Your task to perform on an android device: turn off improve location accuracy Image 0: 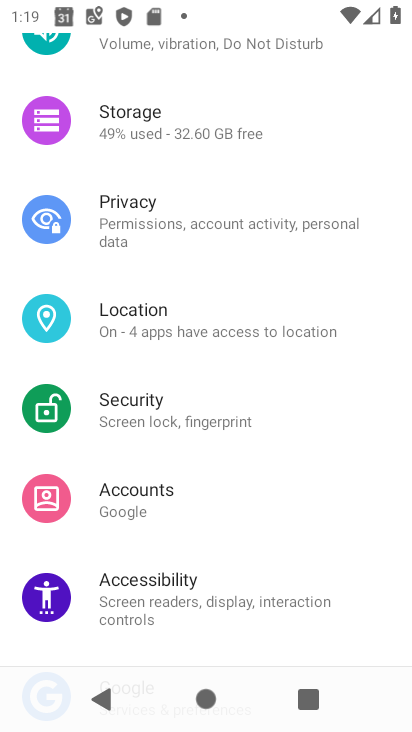
Step 0: click (145, 311)
Your task to perform on an android device: turn off improve location accuracy Image 1: 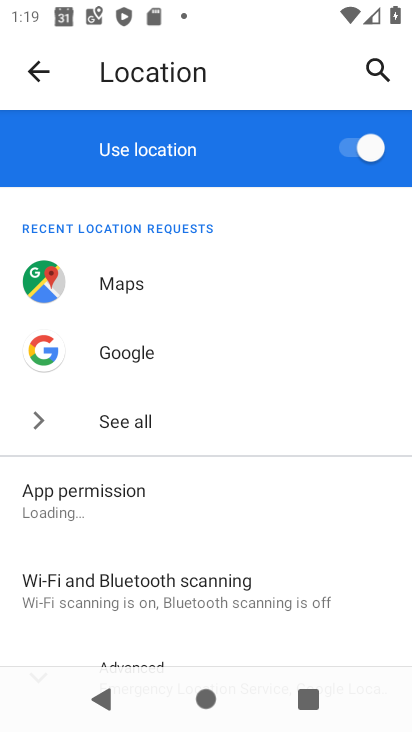
Step 1: drag from (290, 562) to (253, 118)
Your task to perform on an android device: turn off improve location accuracy Image 2: 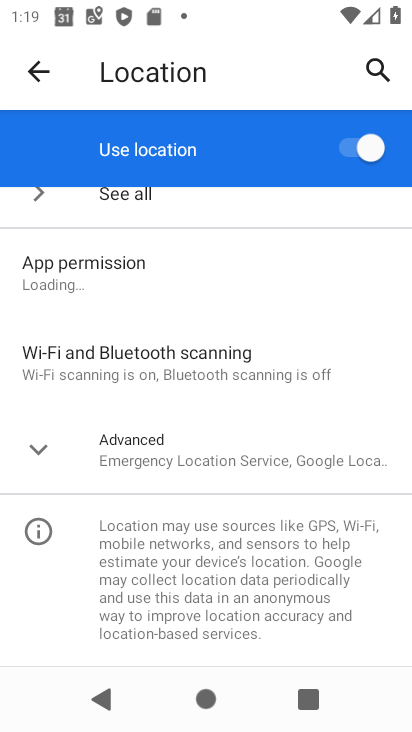
Step 2: click (29, 452)
Your task to perform on an android device: turn off improve location accuracy Image 3: 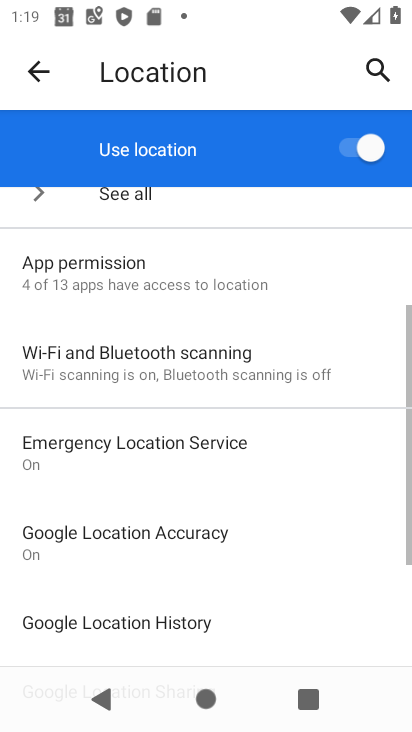
Step 3: drag from (321, 494) to (277, 275)
Your task to perform on an android device: turn off improve location accuracy Image 4: 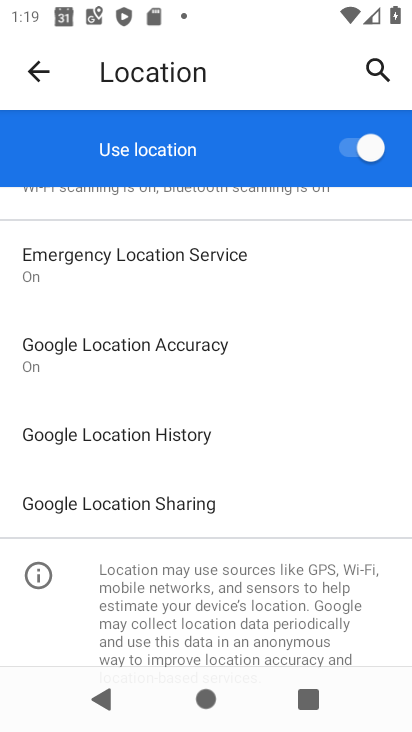
Step 4: click (106, 333)
Your task to perform on an android device: turn off improve location accuracy Image 5: 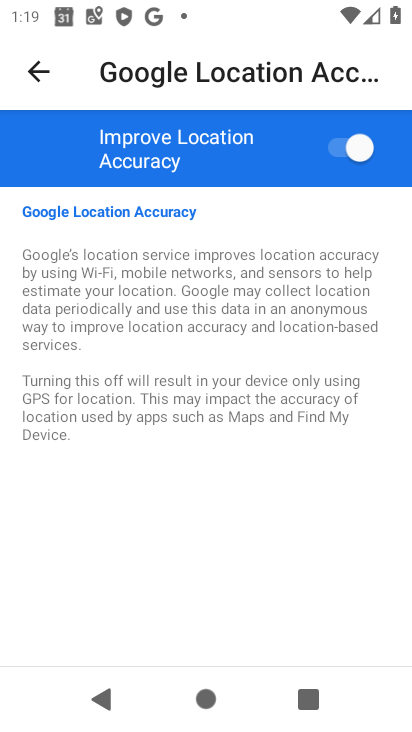
Step 5: click (341, 149)
Your task to perform on an android device: turn off improve location accuracy Image 6: 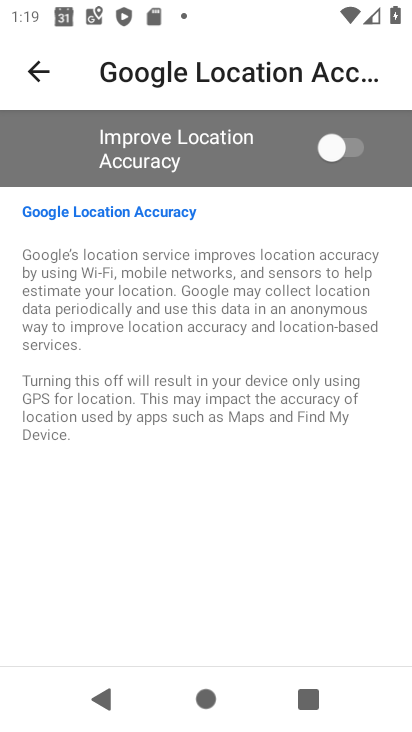
Step 6: task complete